Your task to perform on an android device: Open wifi settings Image 0: 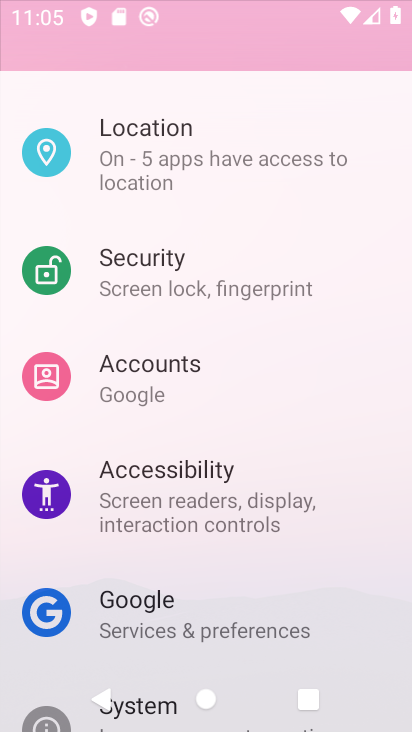
Step 0: drag from (224, 613) to (70, 9)
Your task to perform on an android device: Open wifi settings Image 1: 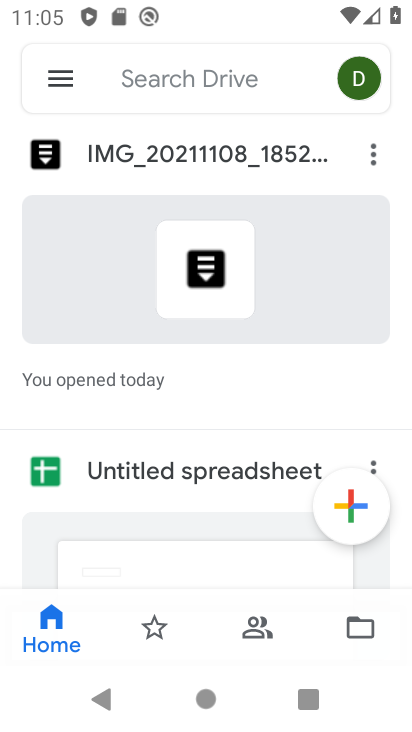
Step 1: press home button
Your task to perform on an android device: Open wifi settings Image 2: 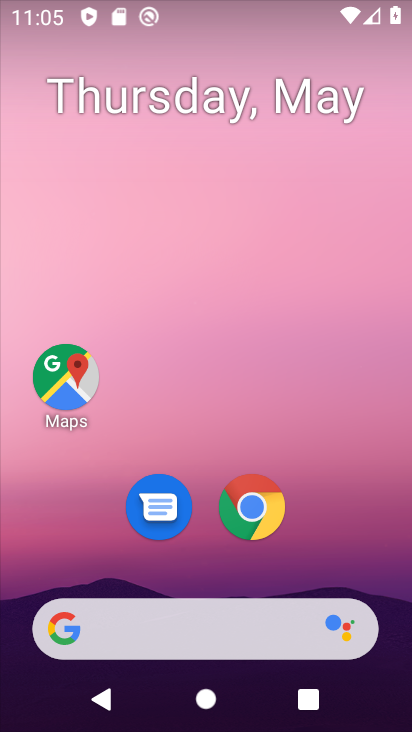
Step 2: drag from (243, 496) to (380, 9)
Your task to perform on an android device: Open wifi settings Image 3: 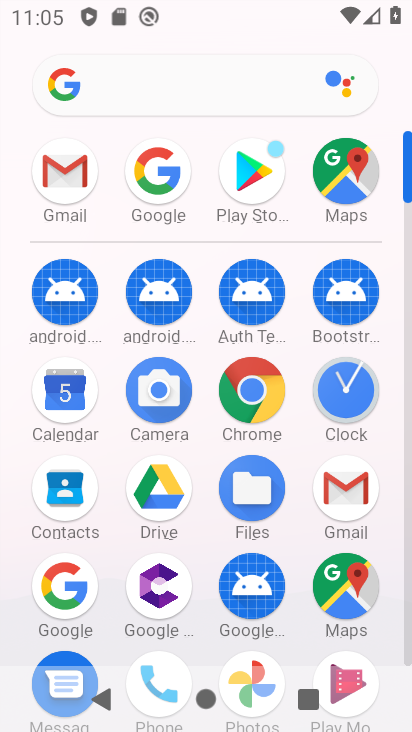
Step 3: drag from (277, 495) to (401, 18)
Your task to perform on an android device: Open wifi settings Image 4: 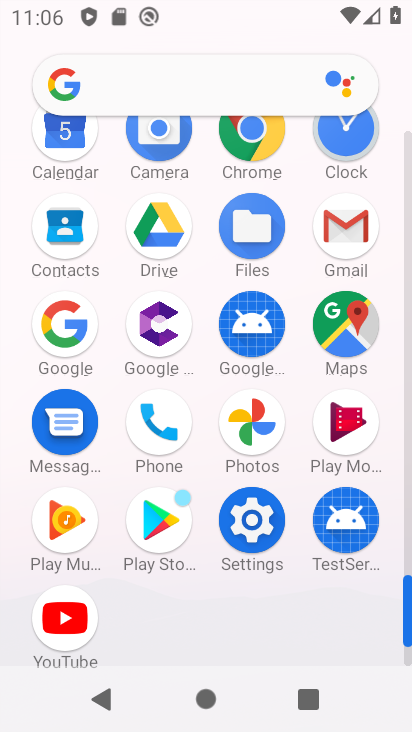
Step 4: click (252, 535)
Your task to perform on an android device: Open wifi settings Image 5: 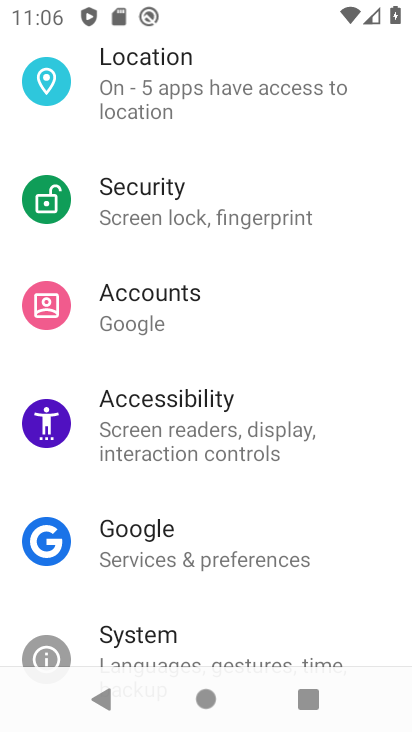
Step 5: drag from (254, 192) to (250, 656)
Your task to perform on an android device: Open wifi settings Image 6: 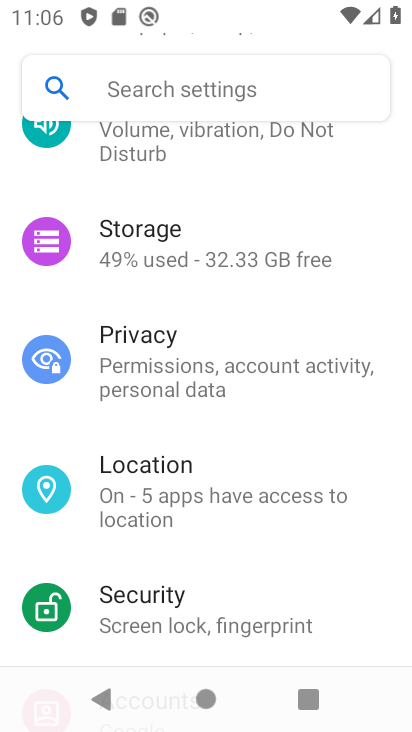
Step 6: drag from (221, 252) to (195, 720)
Your task to perform on an android device: Open wifi settings Image 7: 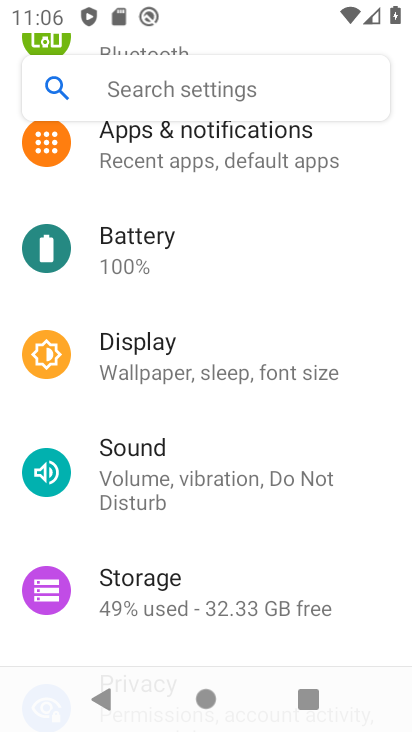
Step 7: drag from (217, 263) to (227, 706)
Your task to perform on an android device: Open wifi settings Image 8: 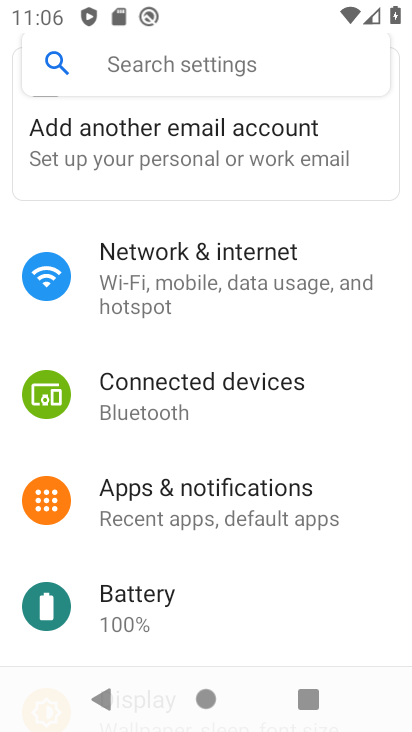
Step 8: click (234, 304)
Your task to perform on an android device: Open wifi settings Image 9: 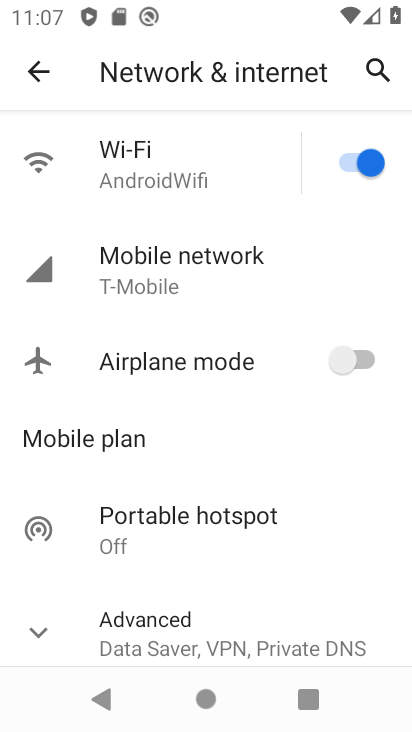
Step 9: drag from (255, 547) to (303, 139)
Your task to perform on an android device: Open wifi settings Image 10: 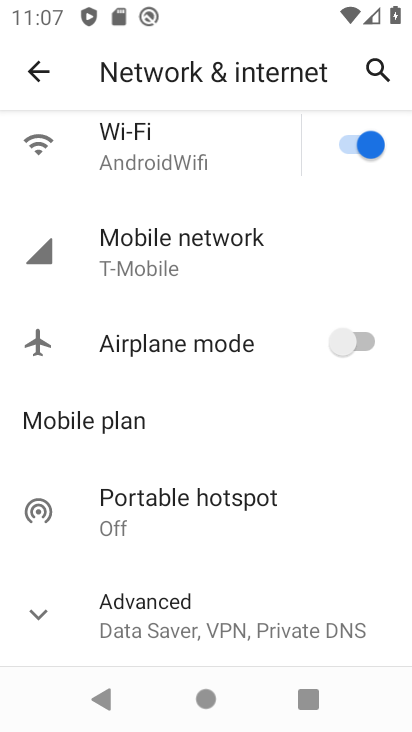
Step 10: click (211, 627)
Your task to perform on an android device: Open wifi settings Image 11: 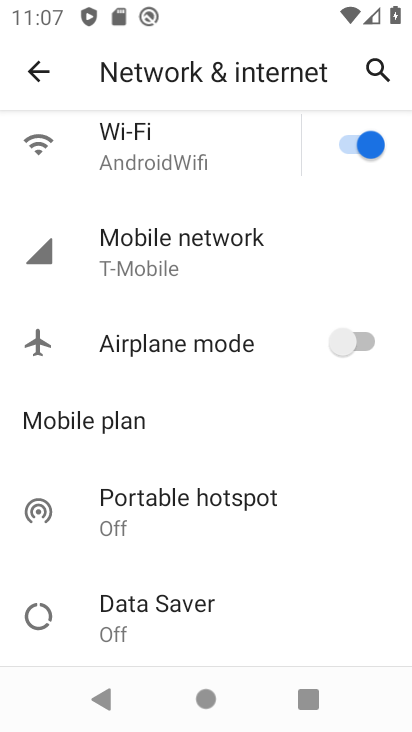
Step 11: click (166, 172)
Your task to perform on an android device: Open wifi settings Image 12: 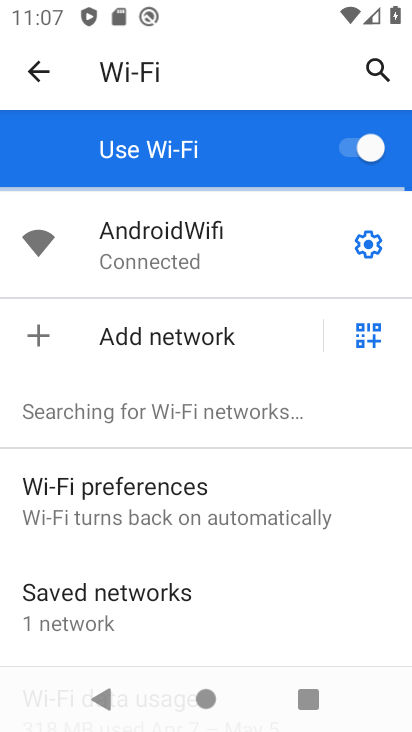
Step 12: task complete